Your task to perform on an android device: allow notifications from all sites in the chrome app Image 0: 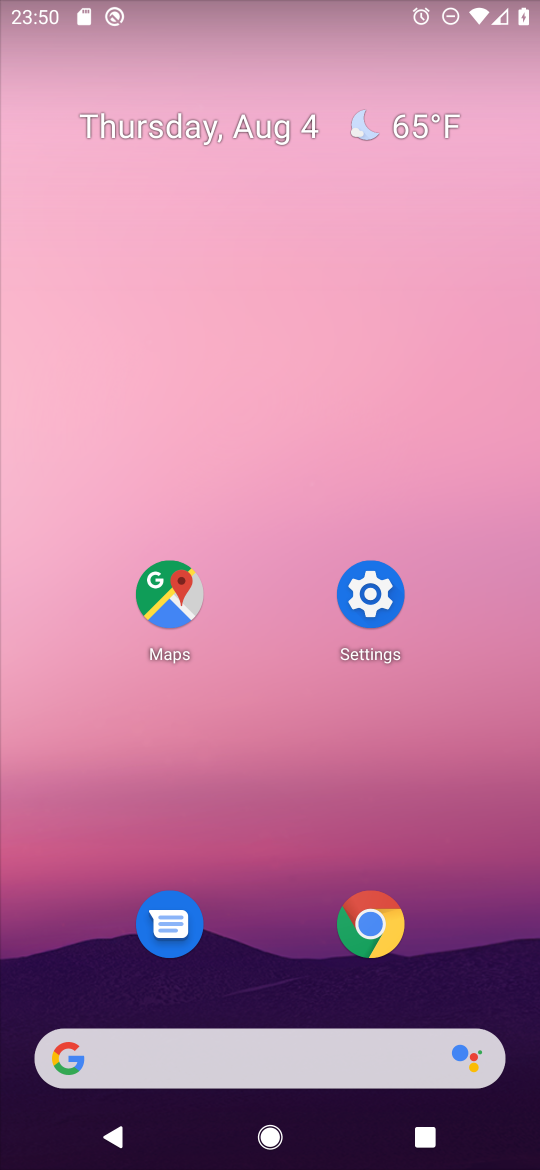
Step 0: click (369, 938)
Your task to perform on an android device: allow notifications from all sites in the chrome app Image 1: 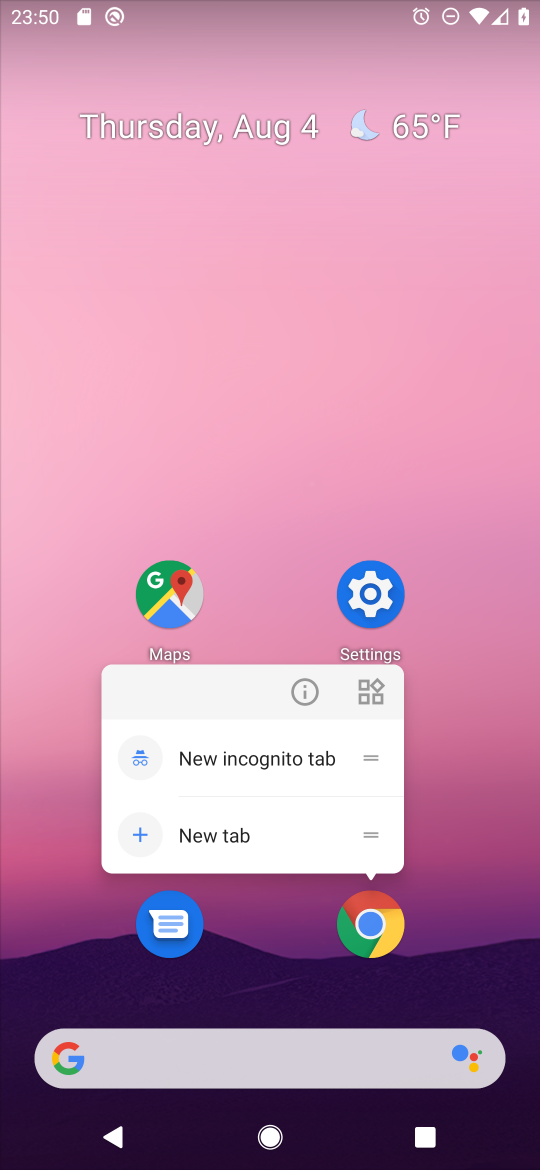
Step 1: click (375, 926)
Your task to perform on an android device: allow notifications from all sites in the chrome app Image 2: 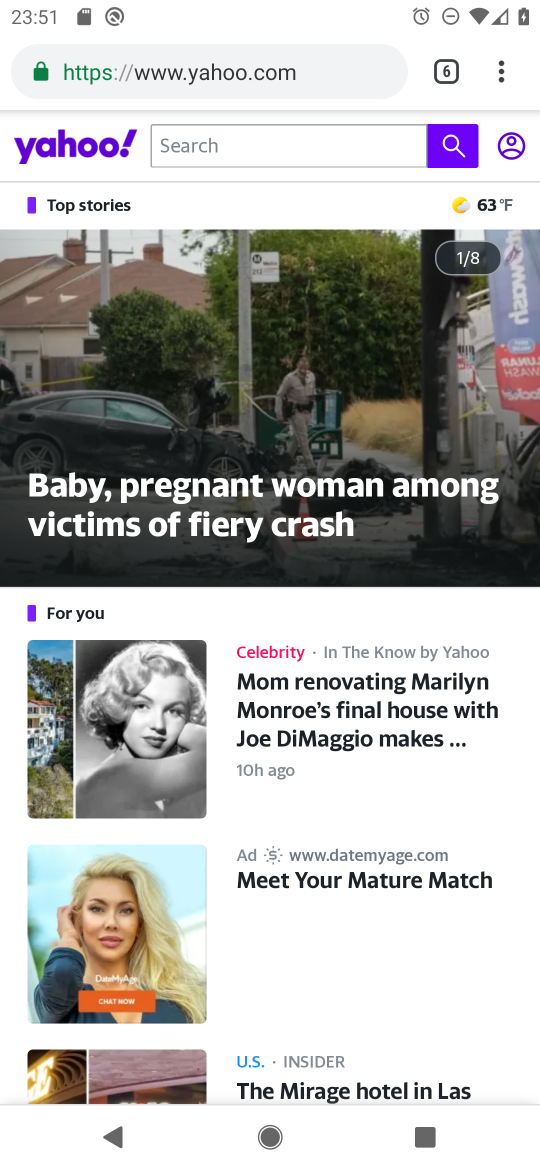
Step 2: drag from (495, 66) to (288, 860)
Your task to perform on an android device: allow notifications from all sites in the chrome app Image 3: 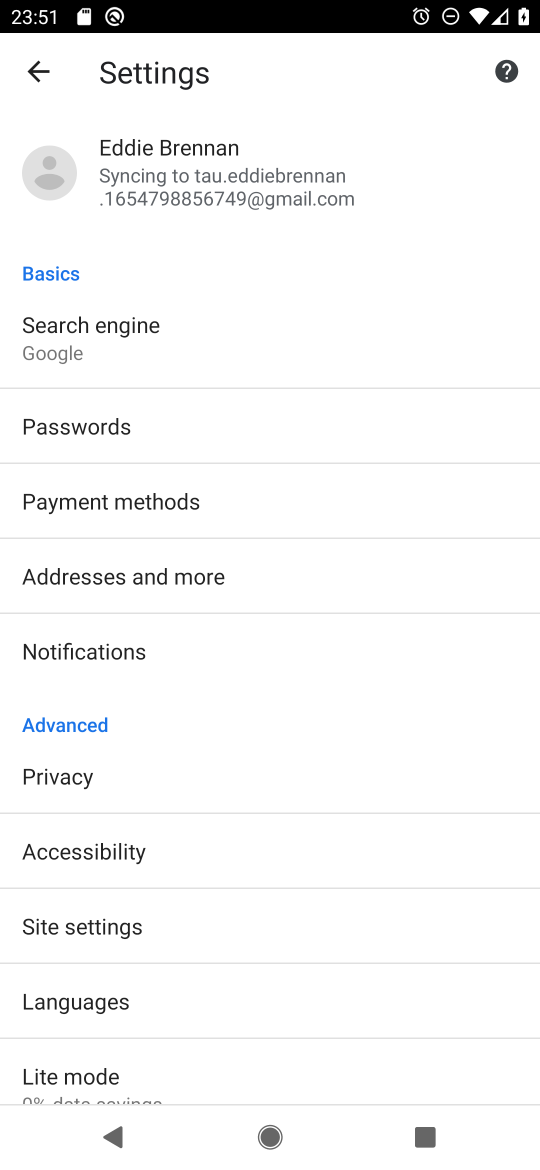
Step 3: click (113, 929)
Your task to perform on an android device: allow notifications from all sites in the chrome app Image 4: 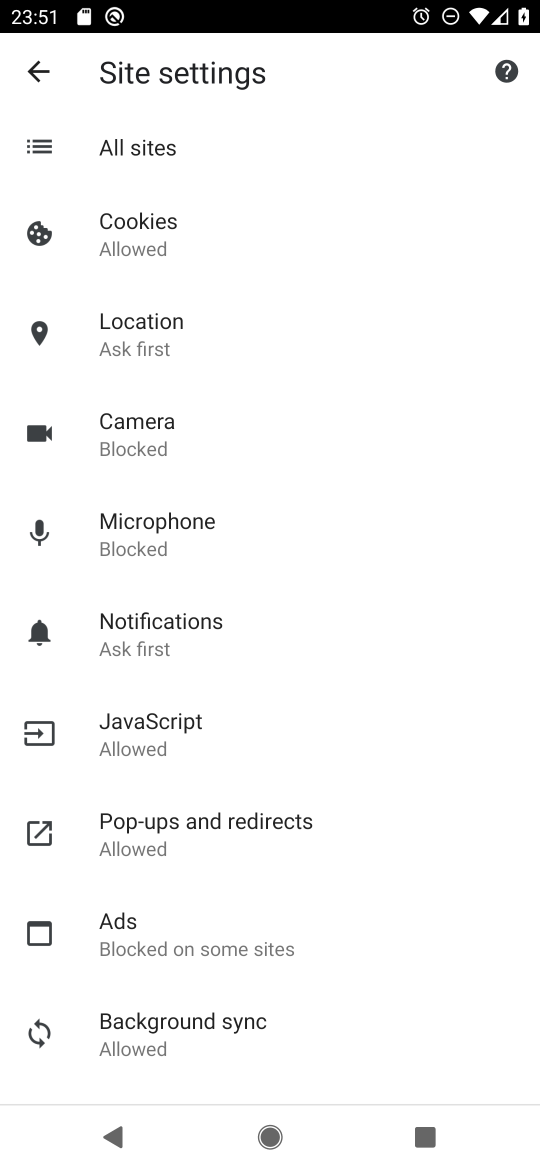
Step 4: click (155, 641)
Your task to perform on an android device: allow notifications from all sites in the chrome app Image 5: 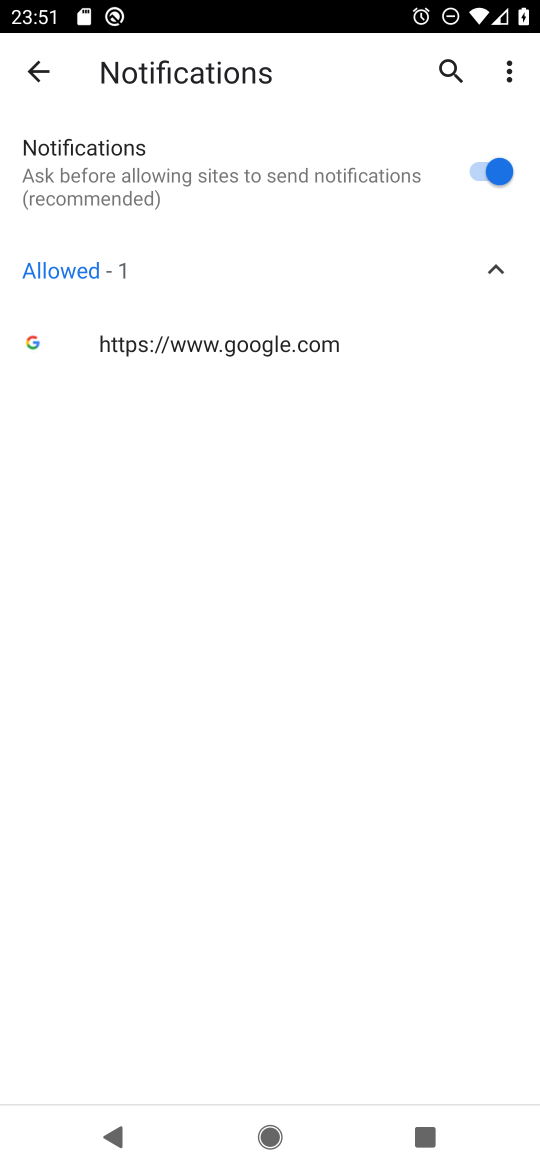
Step 5: task complete